Your task to perform on an android device: Open CNN.com Image 0: 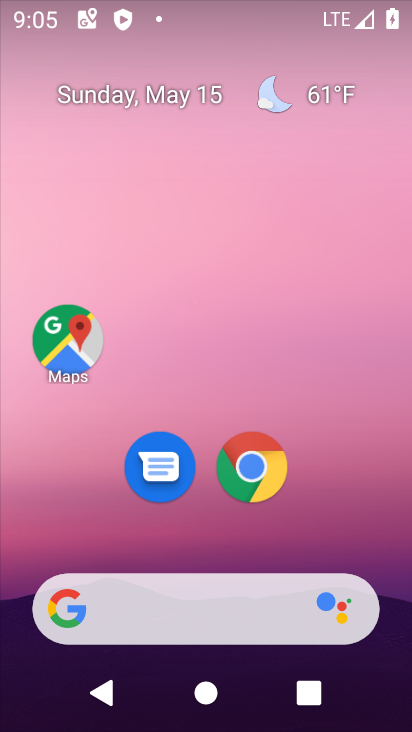
Step 0: click (252, 606)
Your task to perform on an android device: Open CNN.com Image 1: 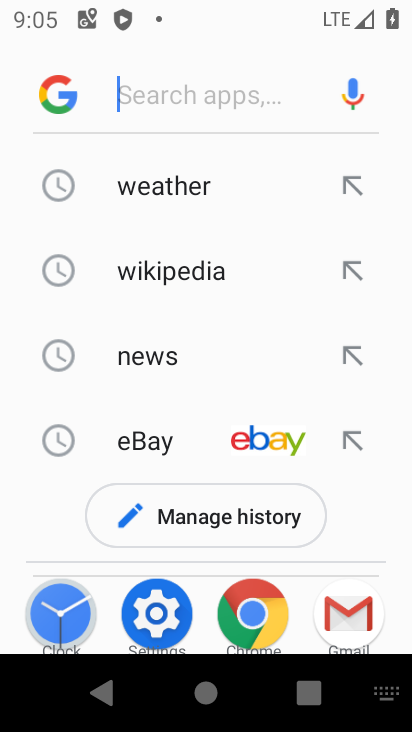
Step 1: type "cnn"
Your task to perform on an android device: Open CNN.com Image 2: 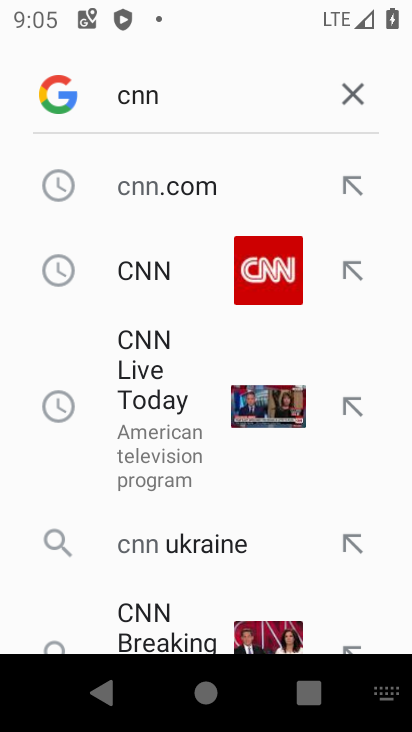
Step 2: click (265, 244)
Your task to perform on an android device: Open CNN.com Image 3: 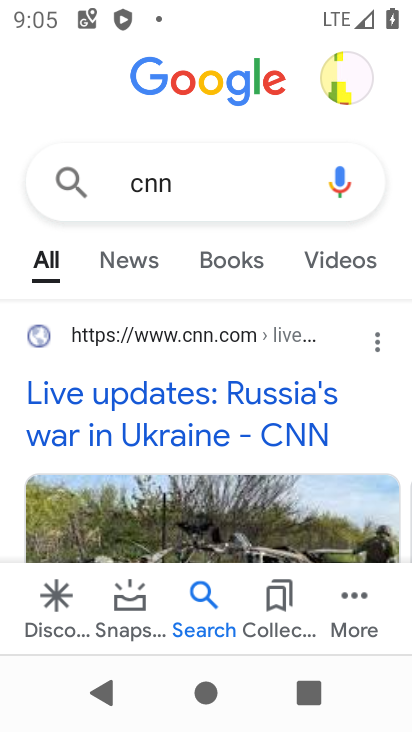
Step 3: click (112, 434)
Your task to perform on an android device: Open CNN.com Image 4: 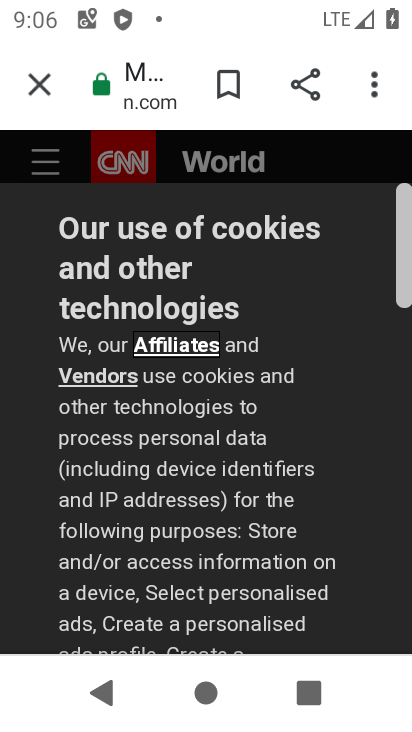
Step 4: task complete